Your task to perform on an android device: Go to Wikipedia Image 0: 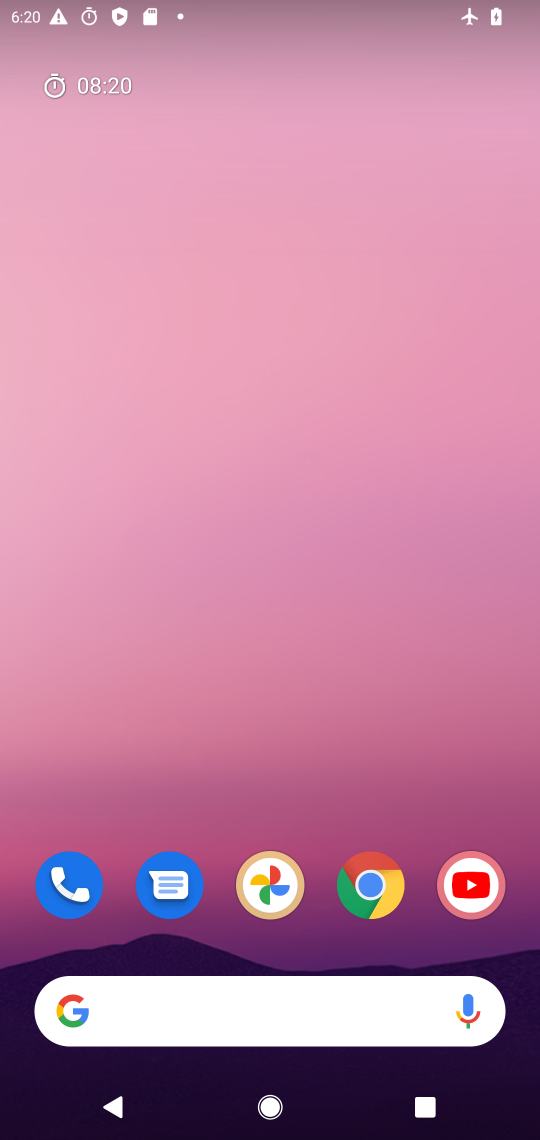
Step 0: click (366, 907)
Your task to perform on an android device: Go to Wikipedia Image 1: 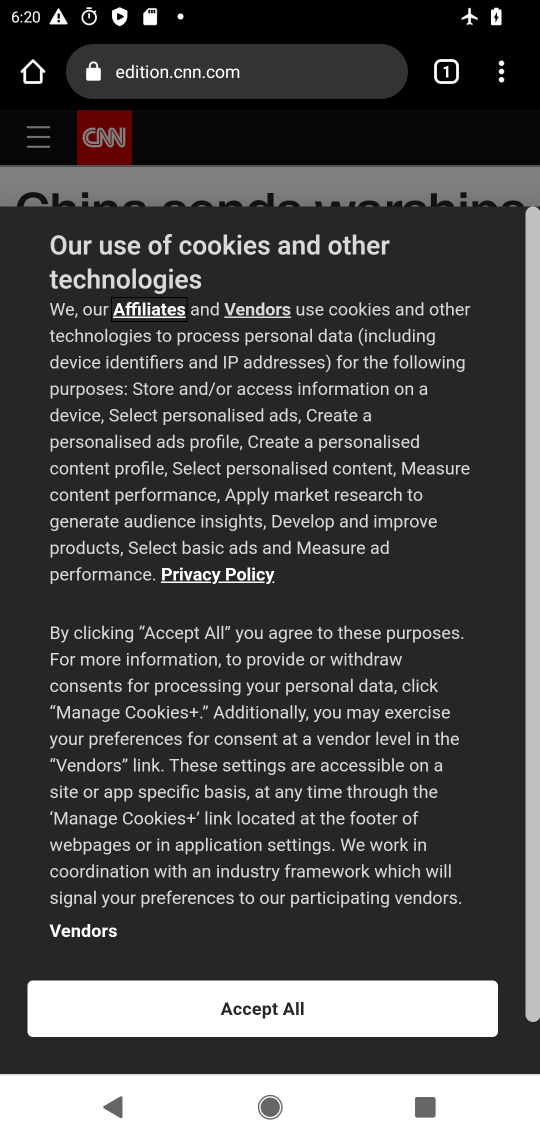
Step 1: click (281, 72)
Your task to perform on an android device: Go to Wikipedia Image 2: 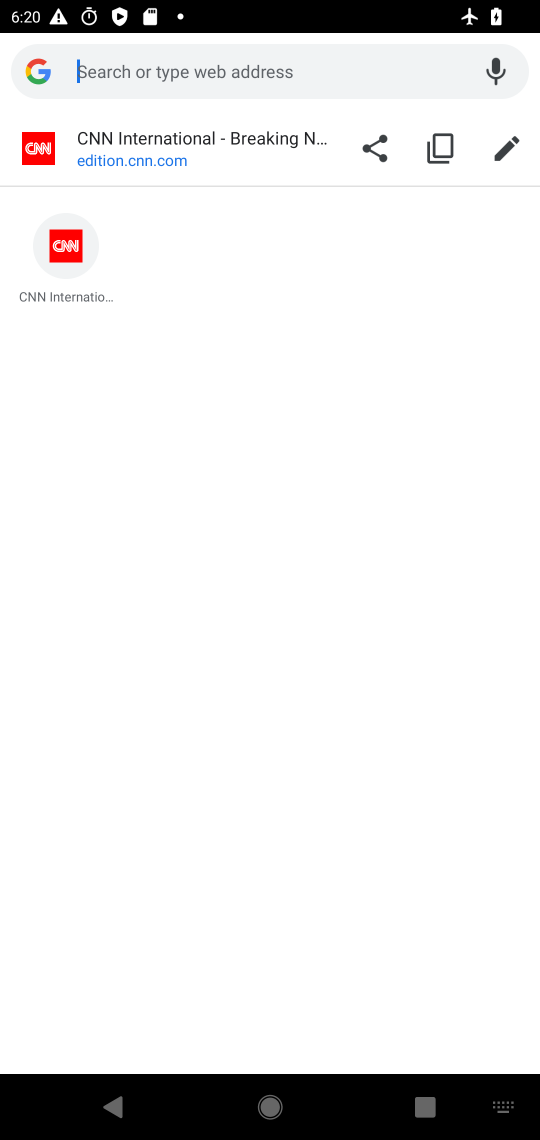
Step 2: type "wikipedia"
Your task to perform on an android device: Go to Wikipedia Image 3: 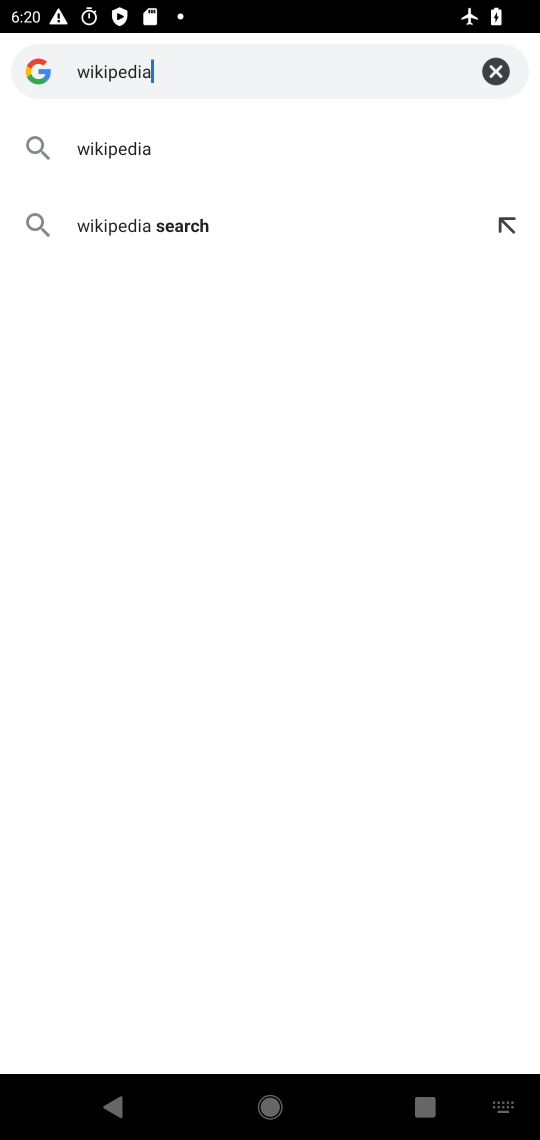
Step 3: click (138, 163)
Your task to perform on an android device: Go to Wikipedia Image 4: 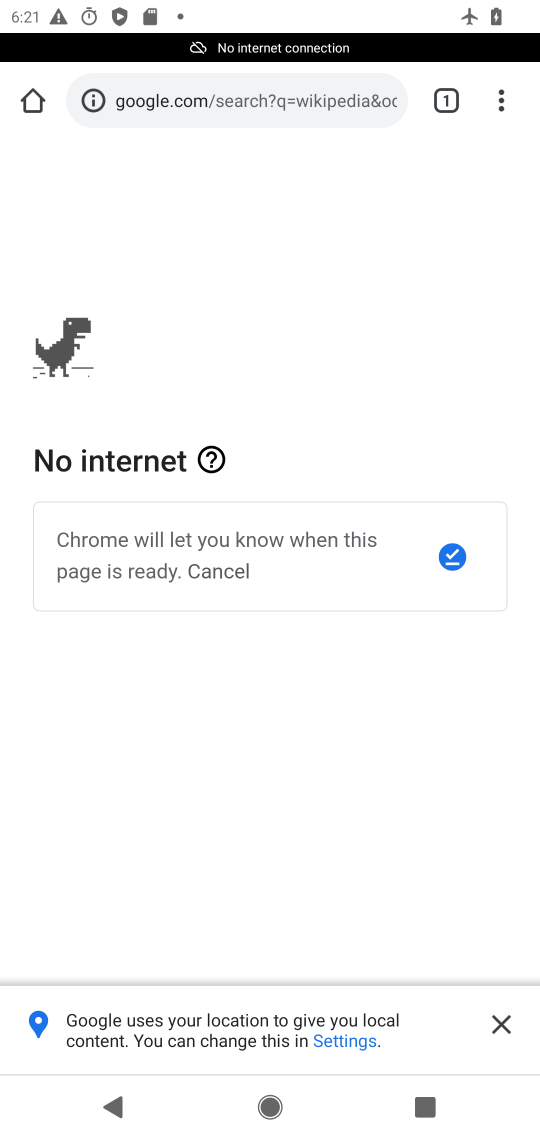
Step 4: task complete